Your task to perform on an android device: turn smart compose on in the gmail app Image 0: 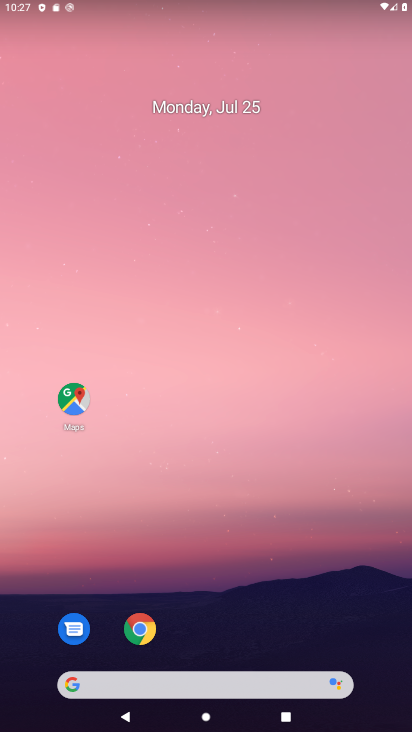
Step 0: drag from (254, 649) to (228, 0)
Your task to perform on an android device: turn smart compose on in the gmail app Image 1: 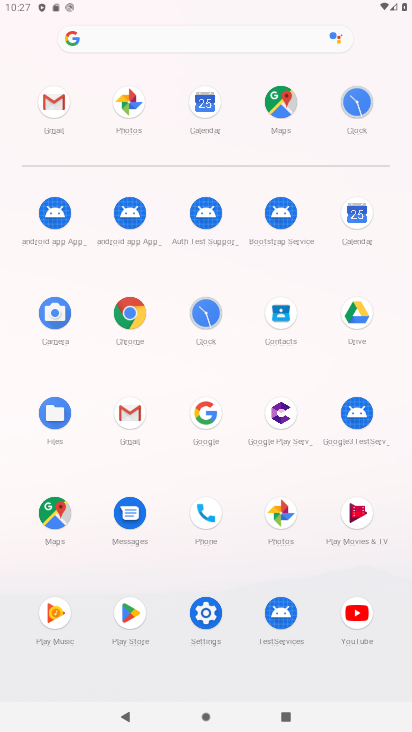
Step 1: click (47, 111)
Your task to perform on an android device: turn smart compose on in the gmail app Image 2: 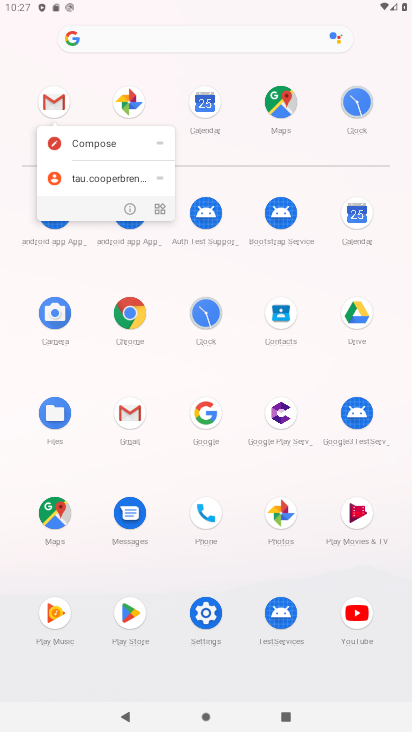
Step 2: click (48, 108)
Your task to perform on an android device: turn smart compose on in the gmail app Image 3: 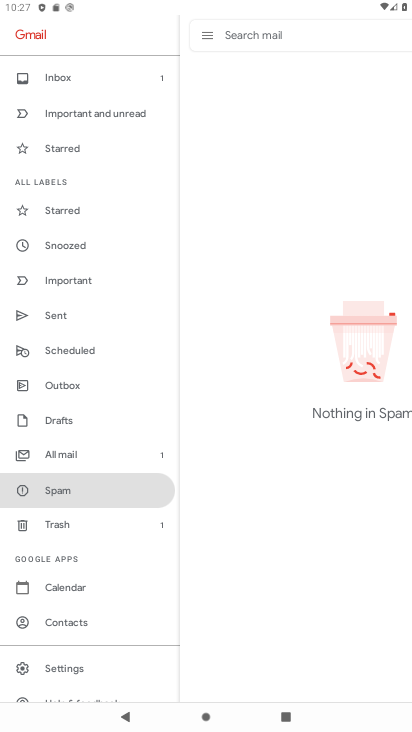
Step 3: click (84, 669)
Your task to perform on an android device: turn smart compose on in the gmail app Image 4: 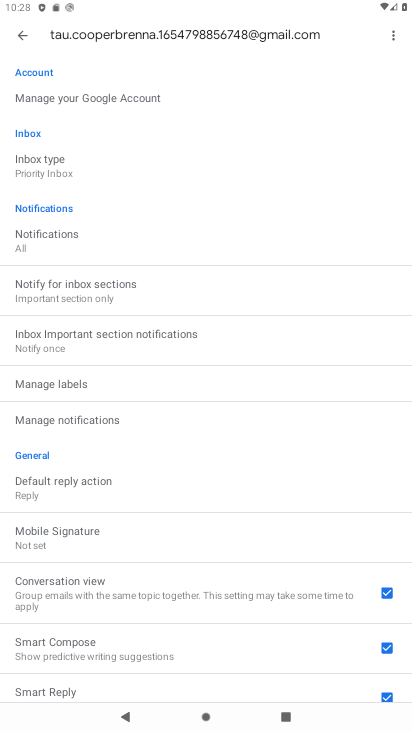
Step 4: task complete